Your task to perform on an android device: turn off airplane mode Image 0: 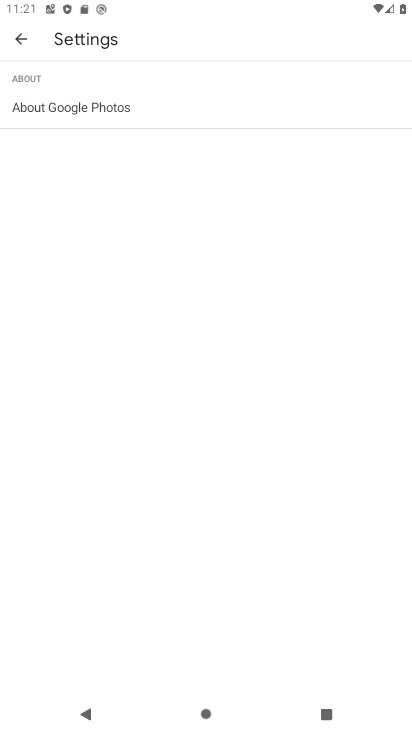
Step 0: press home button
Your task to perform on an android device: turn off airplane mode Image 1: 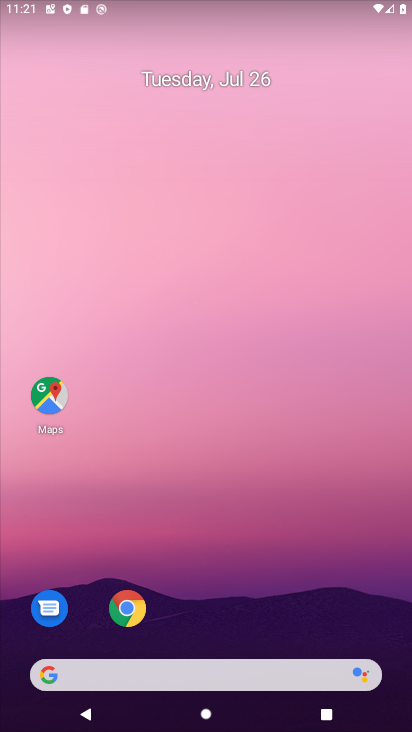
Step 1: drag from (265, 564) to (264, 54)
Your task to perform on an android device: turn off airplane mode Image 2: 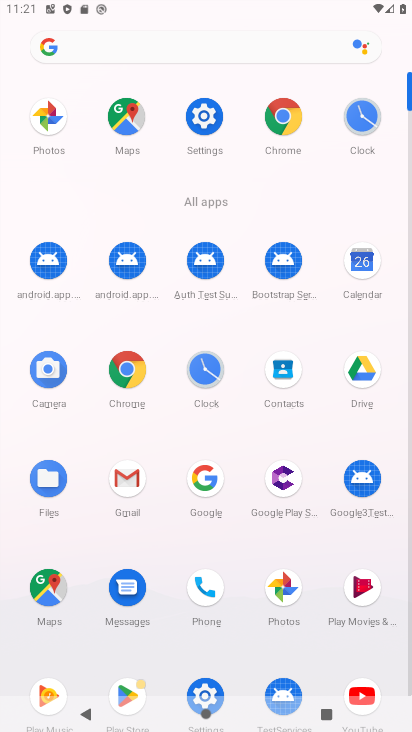
Step 2: click (212, 118)
Your task to perform on an android device: turn off airplane mode Image 3: 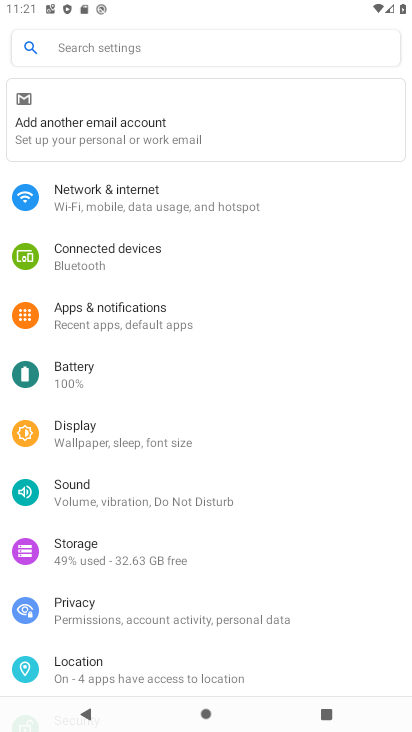
Step 3: click (65, 192)
Your task to perform on an android device: turn off airplane mode Image 4: 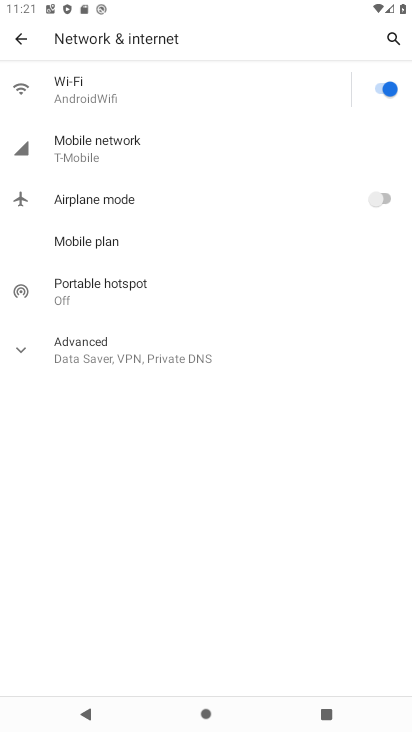
Step 4: task complete